Your task to perform on an android device: turn on the 24-hour format for clock Image 0: 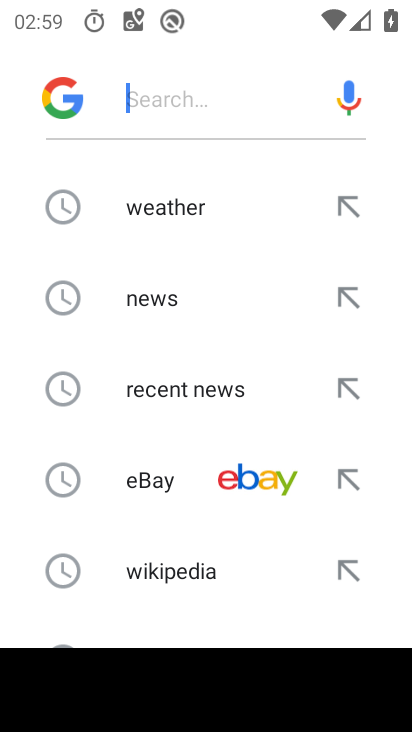
Step 0: press back button
Your task to perform on an android device: turn on the 24-hour format for clock Image 1: 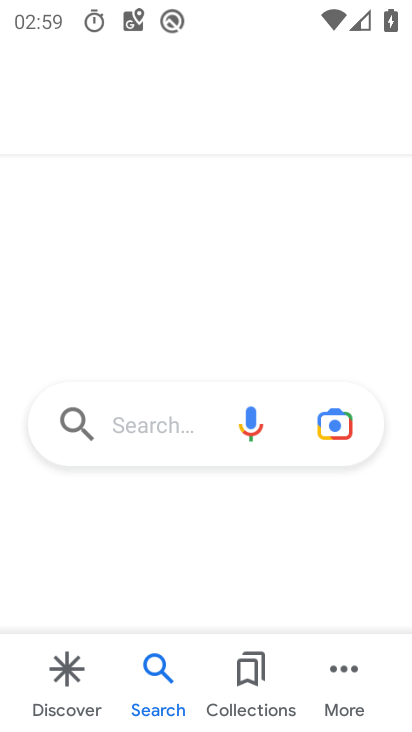
Step 1: press back button
Your task to perform on an android device: turn on the 24-hour format for clock Image 2: 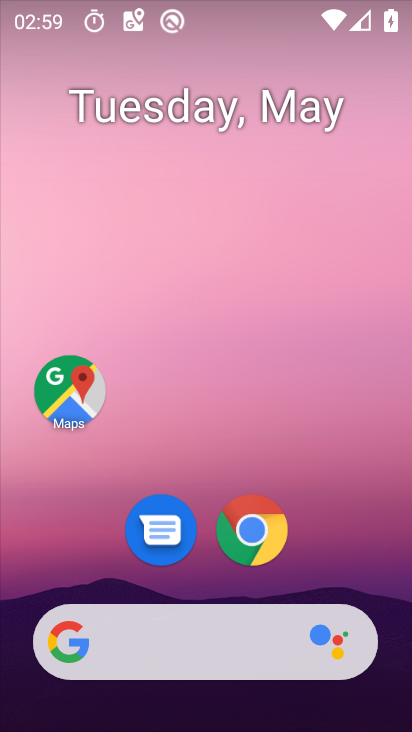
Step 2: drag from (31, 609) to (226, 157)
Your task to perform on an android device: turn on the 24-hour format for clock Image 3: 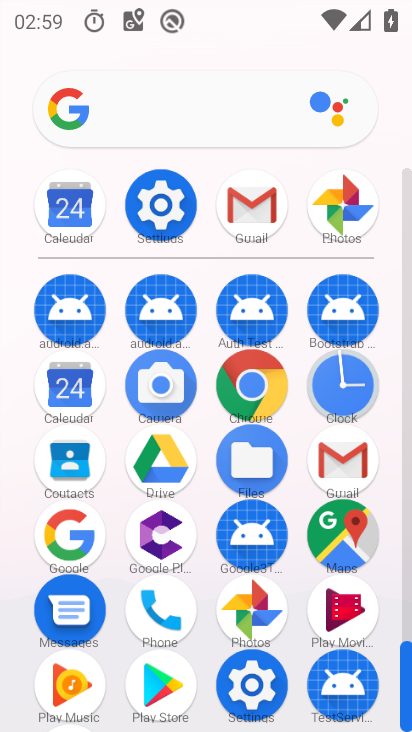
Step 3: click (357, 351)
Your task to perform on an android device: turn on the 24-hour format for clock Image 4: 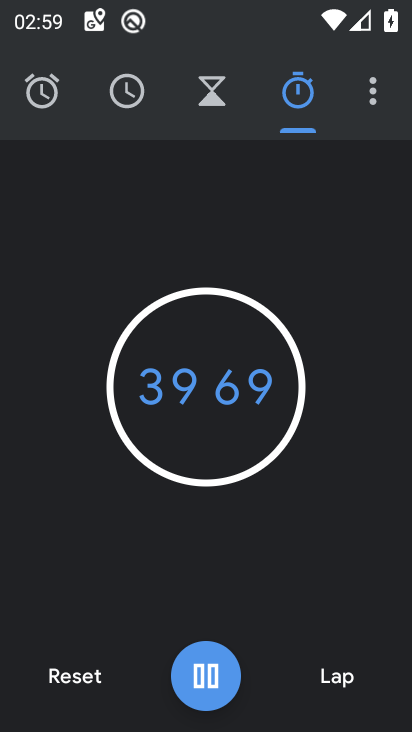
Step 4: click (369, 93)
Your task to perform on an android device: turn on the 24-hour format for clock Image 5: 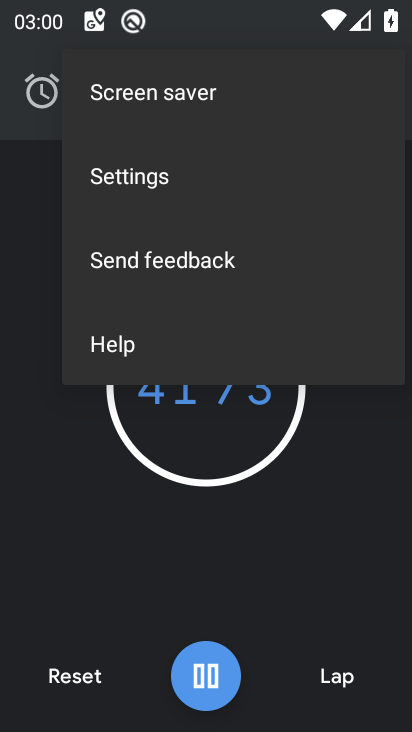
Step 5: click (156, 194)
Your task to perform on an android device: turn on the 24-hour format for clock Image 6: 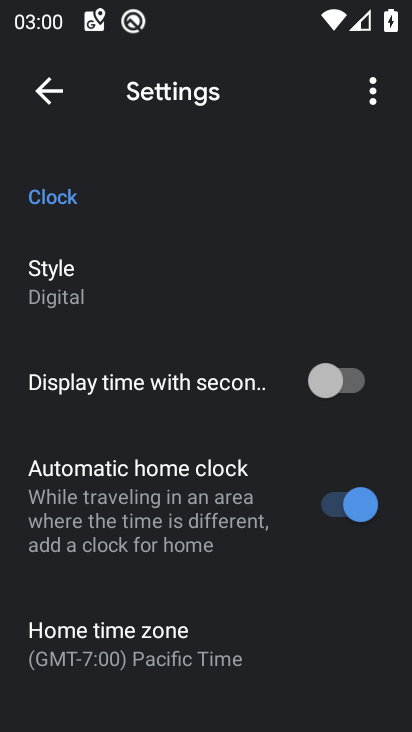
Step 6: drag from (24, 631) to (267, 141)
Your task to perform on an android device: turn on the 24-hour format for clock Image 7: 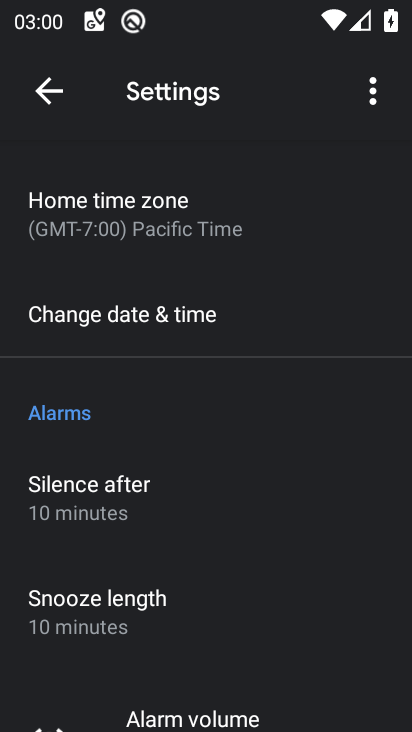
Step 7: click (173, 301)
Your task to perform on an android device: turn on the 24-hour format for clock Image 8: 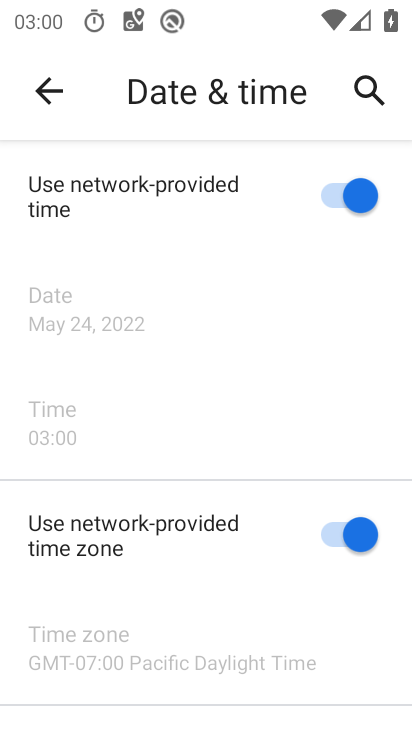
Step 8: task complete